Your task to perform on an android device: turn off wifi Image 0: 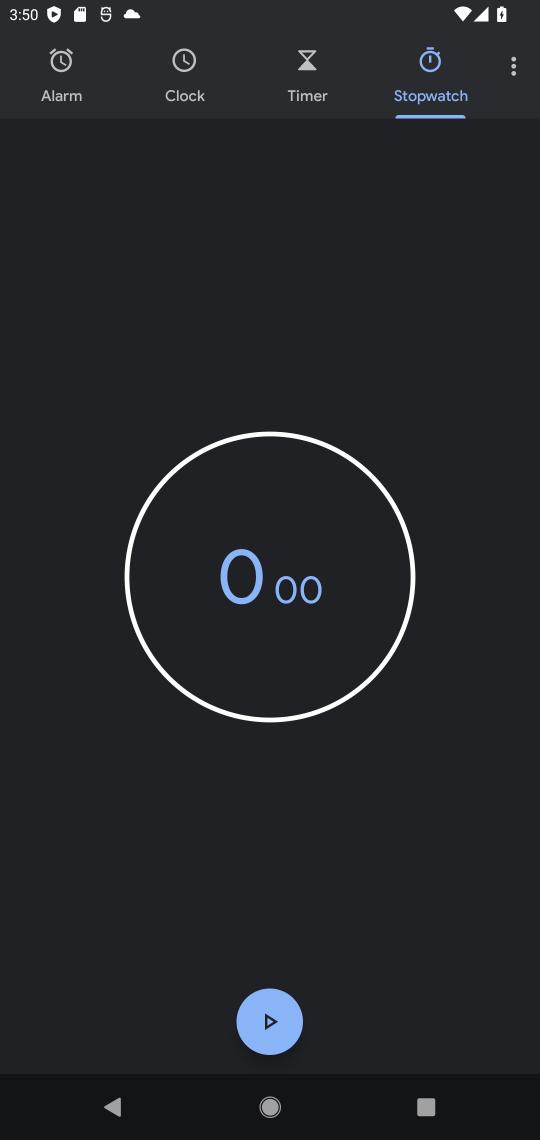
Step 0: press home button
Your task to perform on an android device: turn off wifi Image 1: 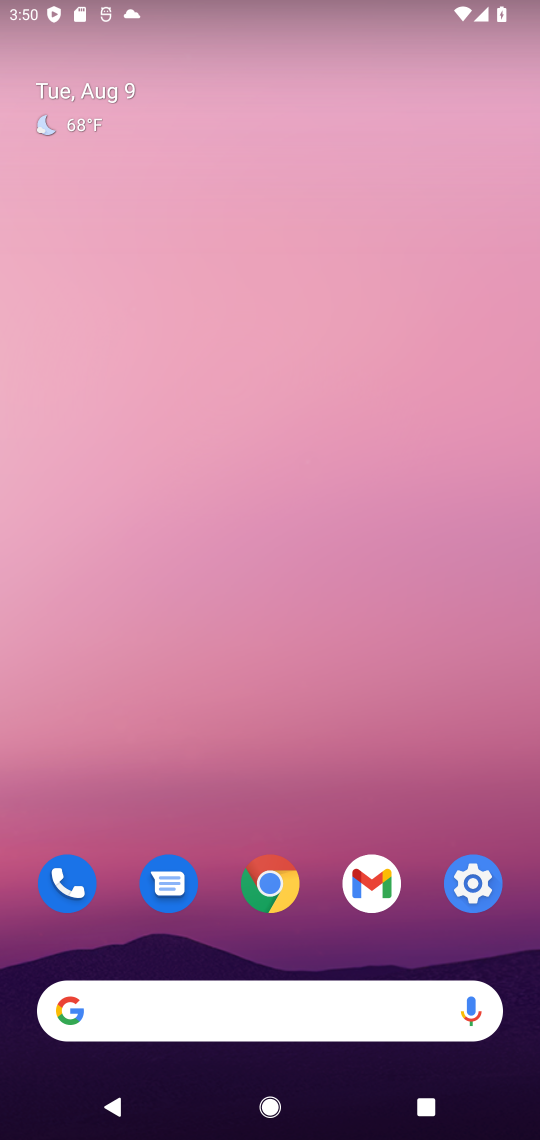
Step 1: drag from (338, 1036) to (220, 278)
Your task to perform on an android device: turn off wifi Image 2: 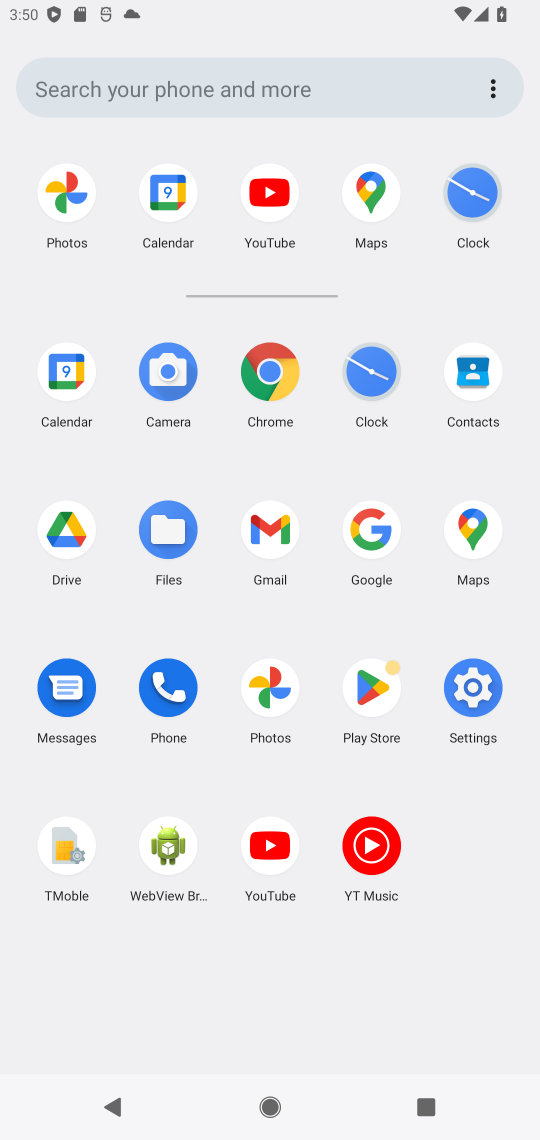
Step 2: click (464, 698)
Your task to perform on an android device: turn off wifi Image 3: 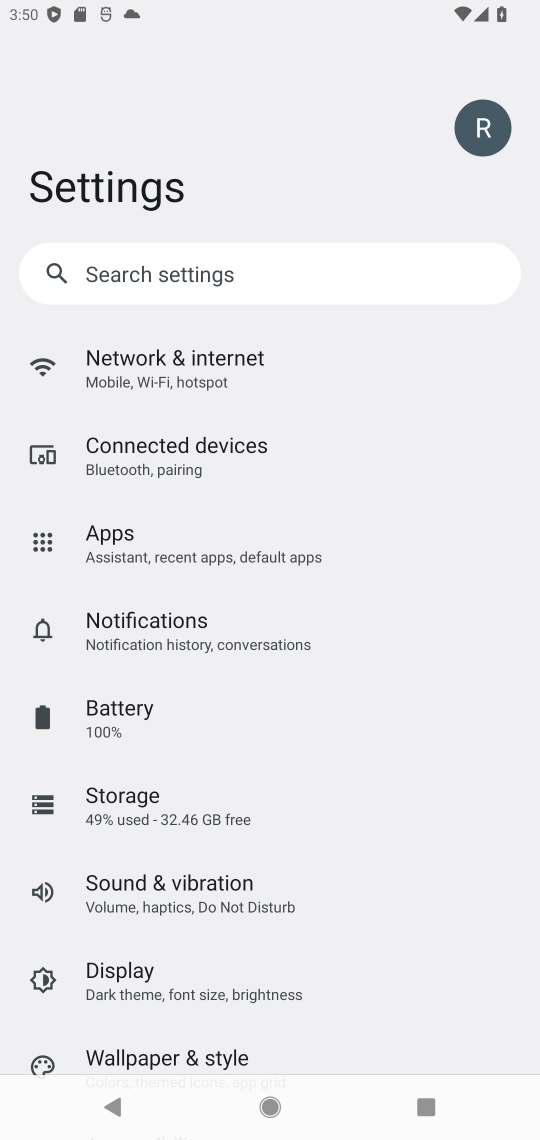
Step 3: click (211, 363)
Your task to perform on an android device: turn off wifi Image 4: 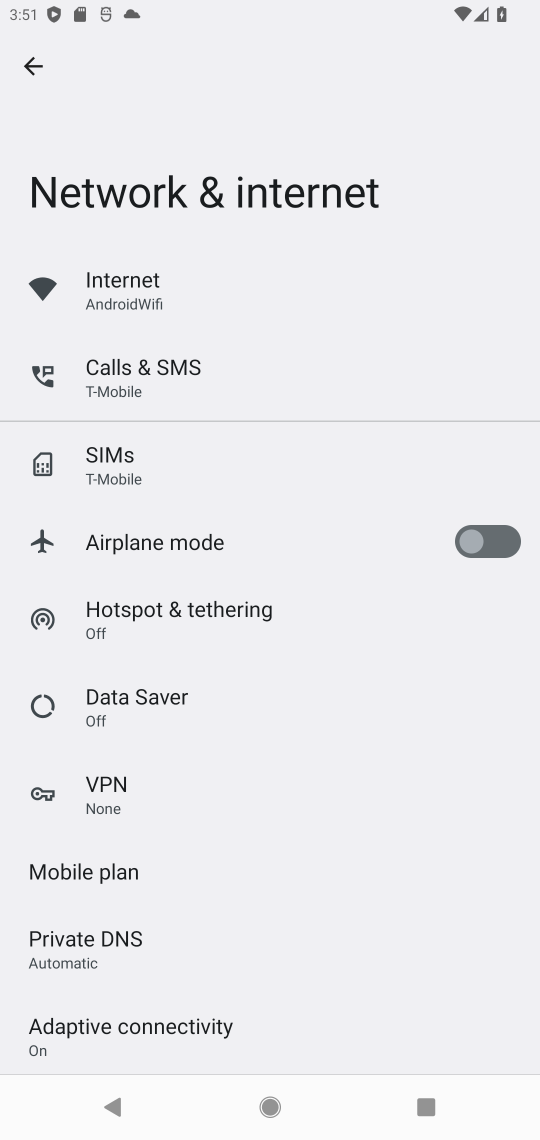
Step 4: task complete